Your task to perform on an android device: delete location history Image 0: 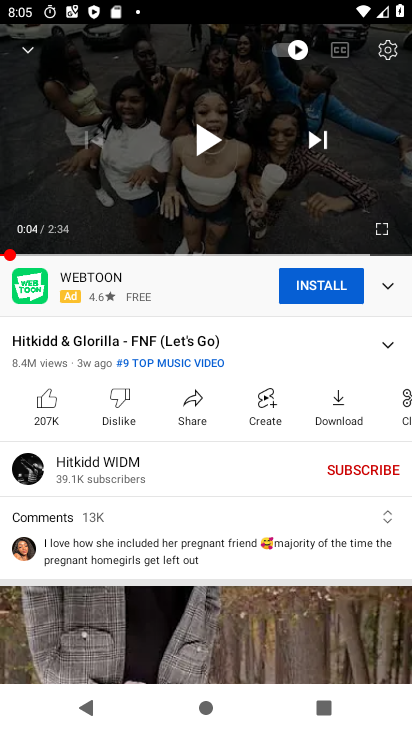
Step 0: press home button
Your task to perform on an android device: delete location history Image 1: 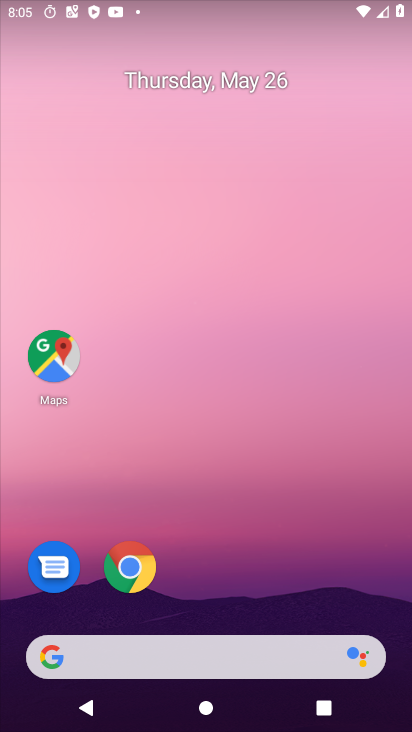
Step 1: click (58, 351)
Your task to perform on an android device: delete location history Image 2: 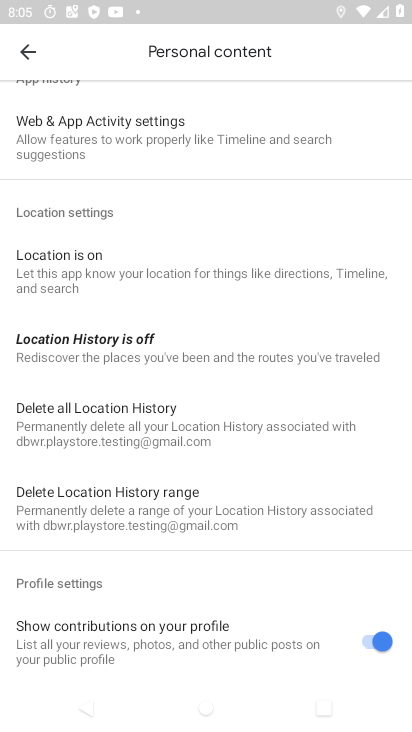
Step 2: click (138, 419)
Your task to perform on an android device: delete location history Image 3: 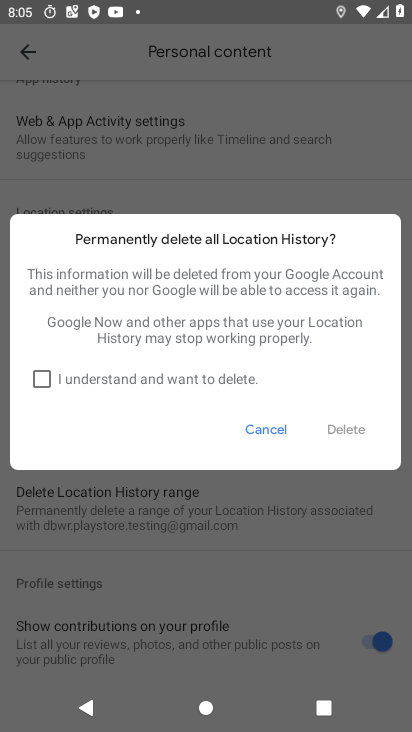
Step 3: click (45, 382)
Your task to perform on an android device: delete location history Image 4: 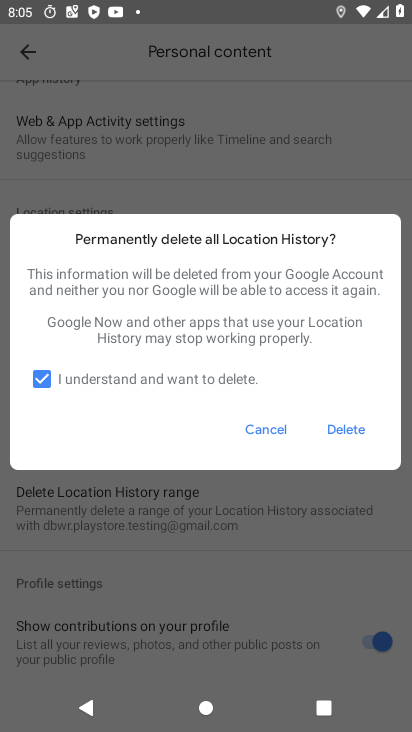
Step 4: click (340, 431)
Your task to perform on an android device: delete location history Image 5: 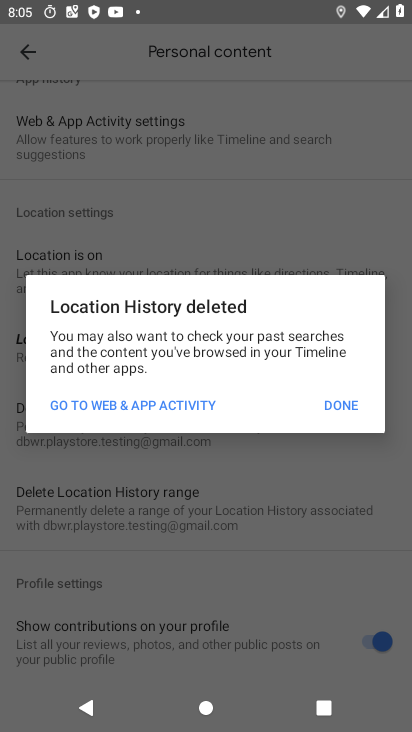
Step 5: click (330, 411)
Your task to perform on an android device: delete location history Image 6: 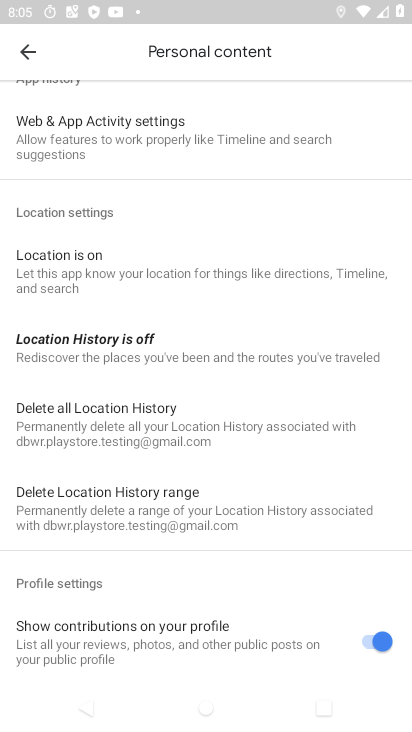
Step 6: task complete